Your task to perform on an android device: Open the web browser Image 0: 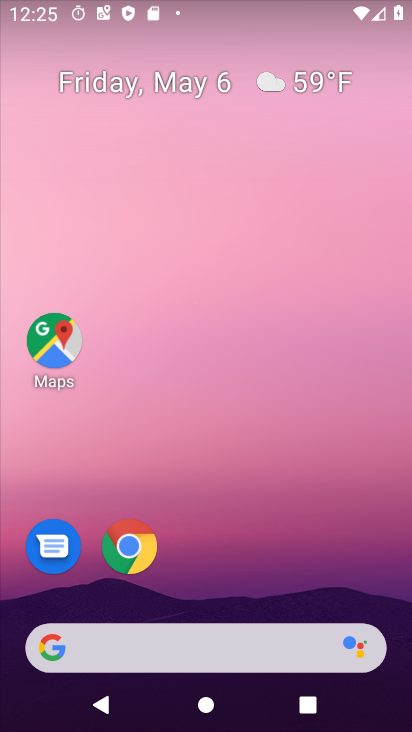
Step 0: click (135, 545)
Your task to perform on an android device: Open the web browser Image 1: 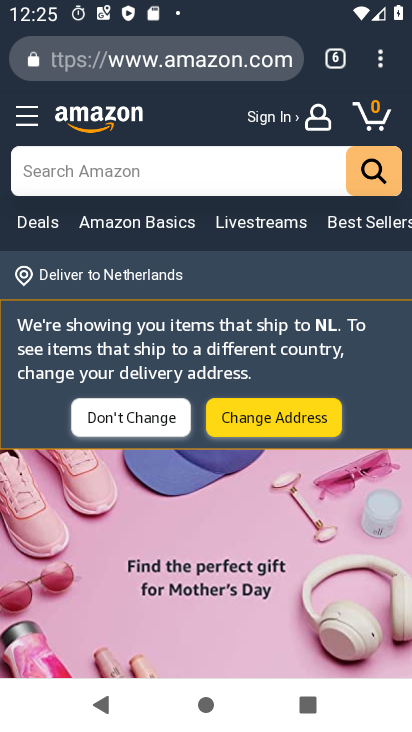
Step 1: task complete